Your task to perform on an android device: turn on priority inbox in the gmail app Image 0: 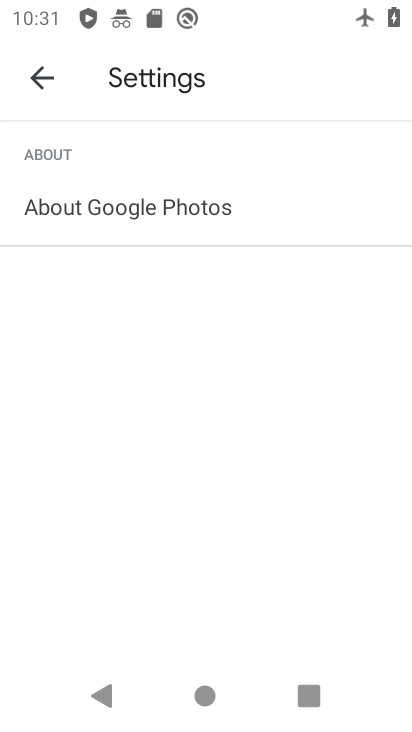
Step 0: press home button
Your task to perform on an android device: turn on priority inbox in the gmail app Image 1: 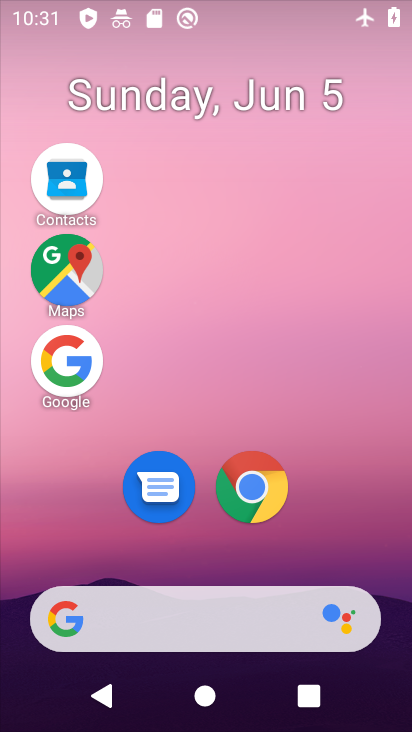
Step 1: drag from (211, 586) to (386, 487)
Your task to perform on an android device: turn on priority inbox in the gmail app Image 2: 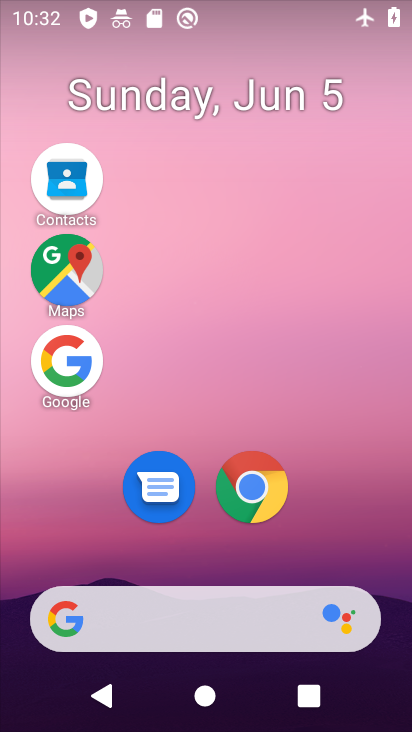
Step 2: drag from (148, 440) to (251, 22)
Your task to perform on an android device: turn on priority inbox in the gmail app Image 3: 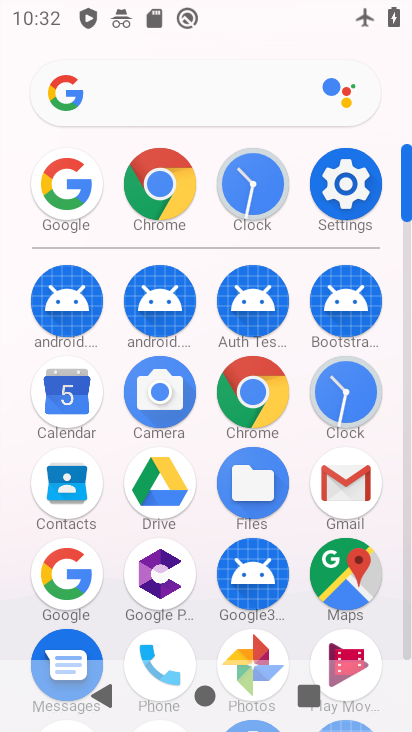
Step 3: click (351, 488)
Your task to perform on an android device: turn on priority inbox in the gmail app Image 4: 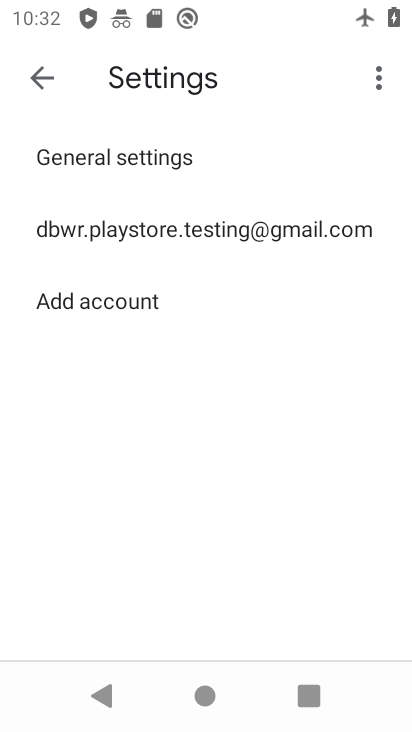
Step 4: click (158, 227)
Your task to perform on an android device: turn on priority inbox in the gmail app Image 5: 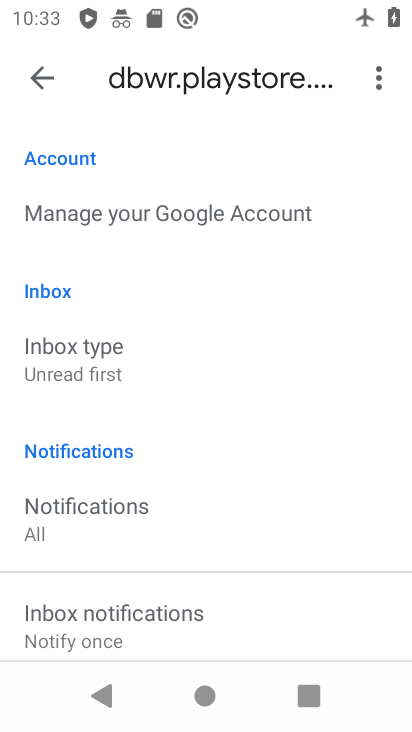
Step 5: drag from (222, 466) to (213, 367)
Your task to perform on an android device: turn on priority inbox in the gmail app Image 6: 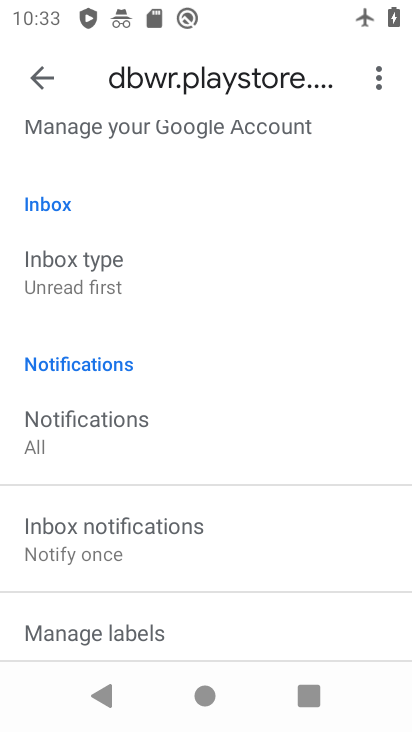
Step 6: click (185, 264)
Your task to perform on an android device: turn on priority inbox in the gmail app Image 7: 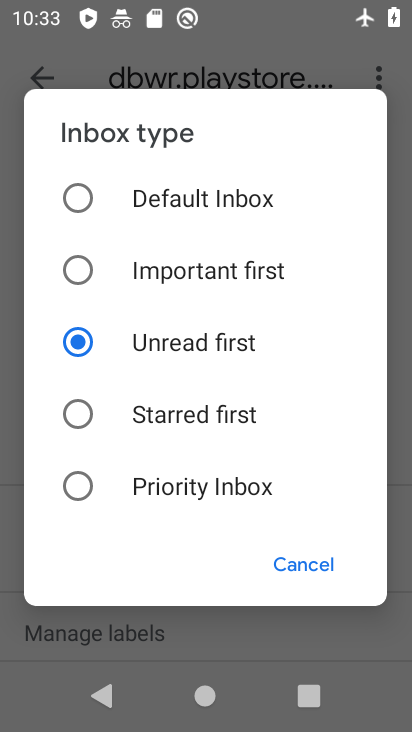
Step 7: click (154, 492)
Your task to perform on an android device: turn on priority inbox in the gmail app Image 8: 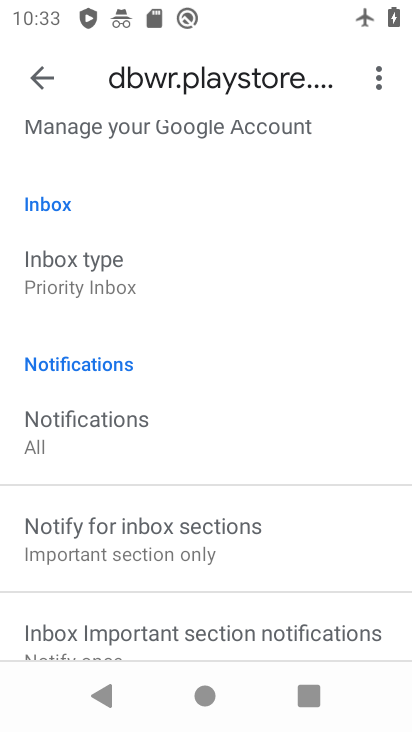
Step 8: task complete